Your task to perform on an android device: Open Amazon Image 0: 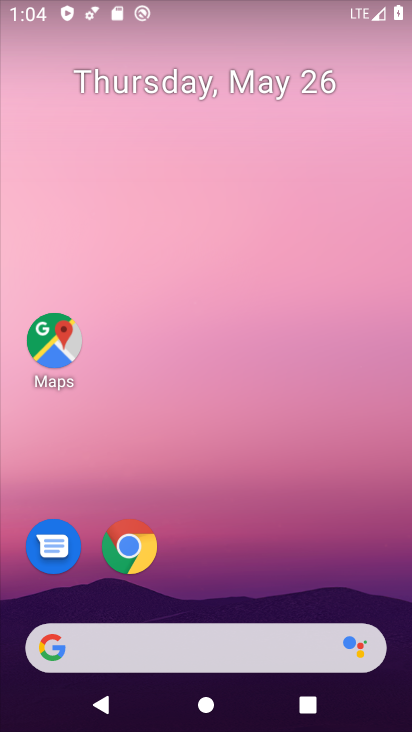
Step 0: click (125, 549)
Your task to perform on an android device: Open Amazon Image 1: 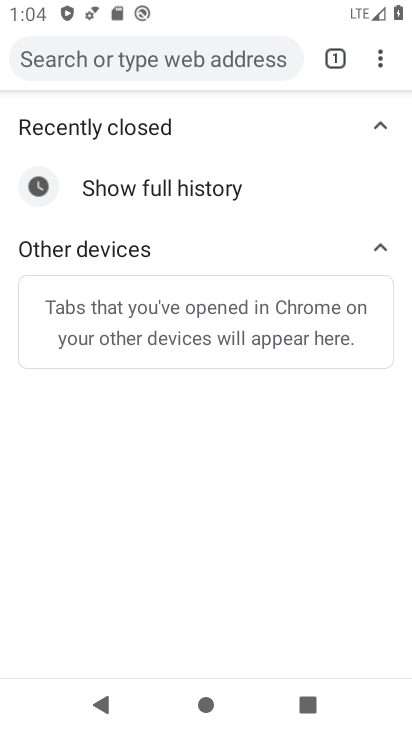
Step 1: click (331, 57)
Your task to perform on an android device: Open Amazon Image 2: 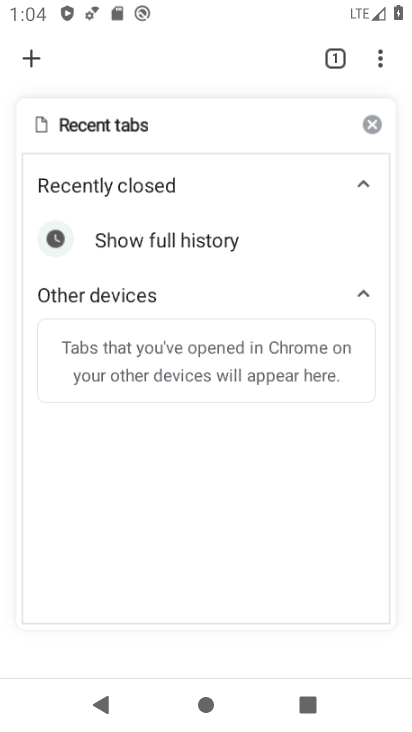
Step 2: click (28, 52)
Your task to perform on an android device: Open Amazon Image 3: 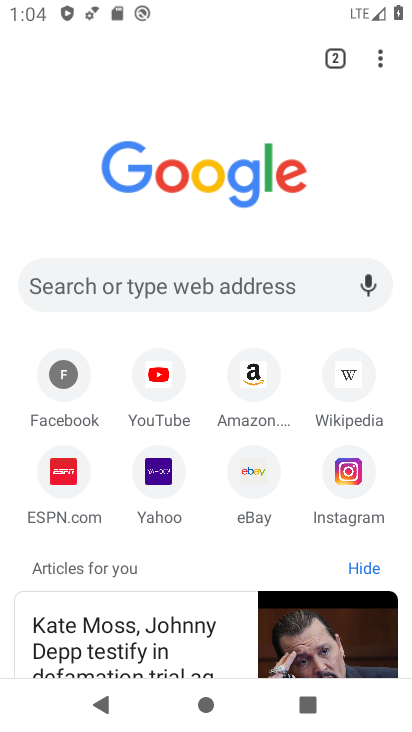
Step 3: click (256, 371)
Your task to perform on an android device: Open Amazon Image 4: 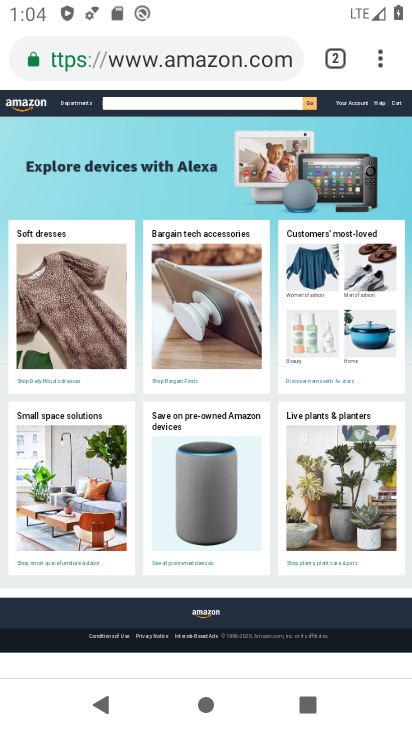
Step 4: task complete